Your task to perform on an android device: View the shopping cart on amazon. Search for "logitech g pro" on amazon, select the first entry, add it to the cart, then select checkout. Image 0: 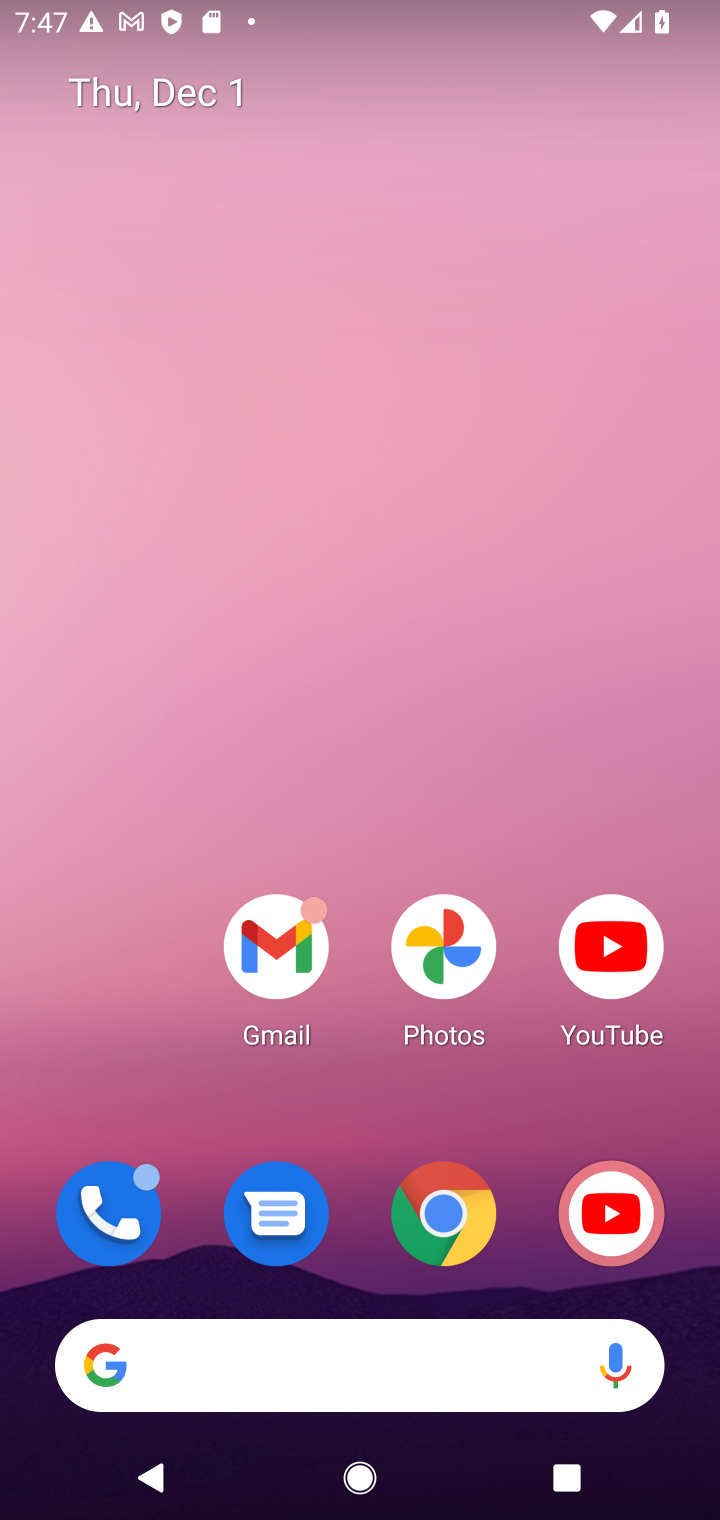
Step 0: click (444, 1212)
Your task to perform on an android device: View the shopping cart on amazon. Search for "logitech g pro" on amazon, select the first entry, add it to the cart, then select checkout. Image 1: 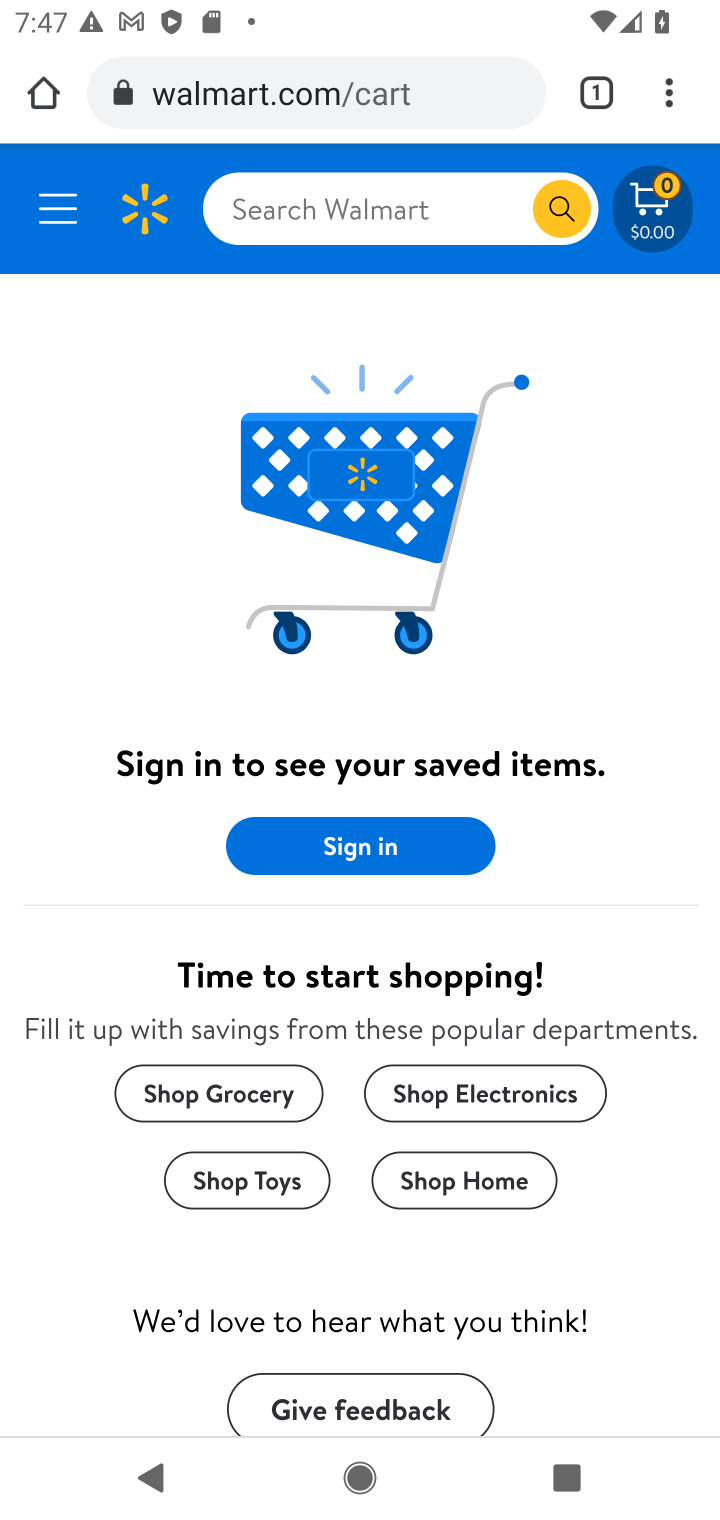
Step 1: click (397, 87)
Your task to perform on an android device: View the shopping cart on amazon. Search for "logitech g pro" on amazon, select the first entry, add it to the cart, then select checkout. Image 2: 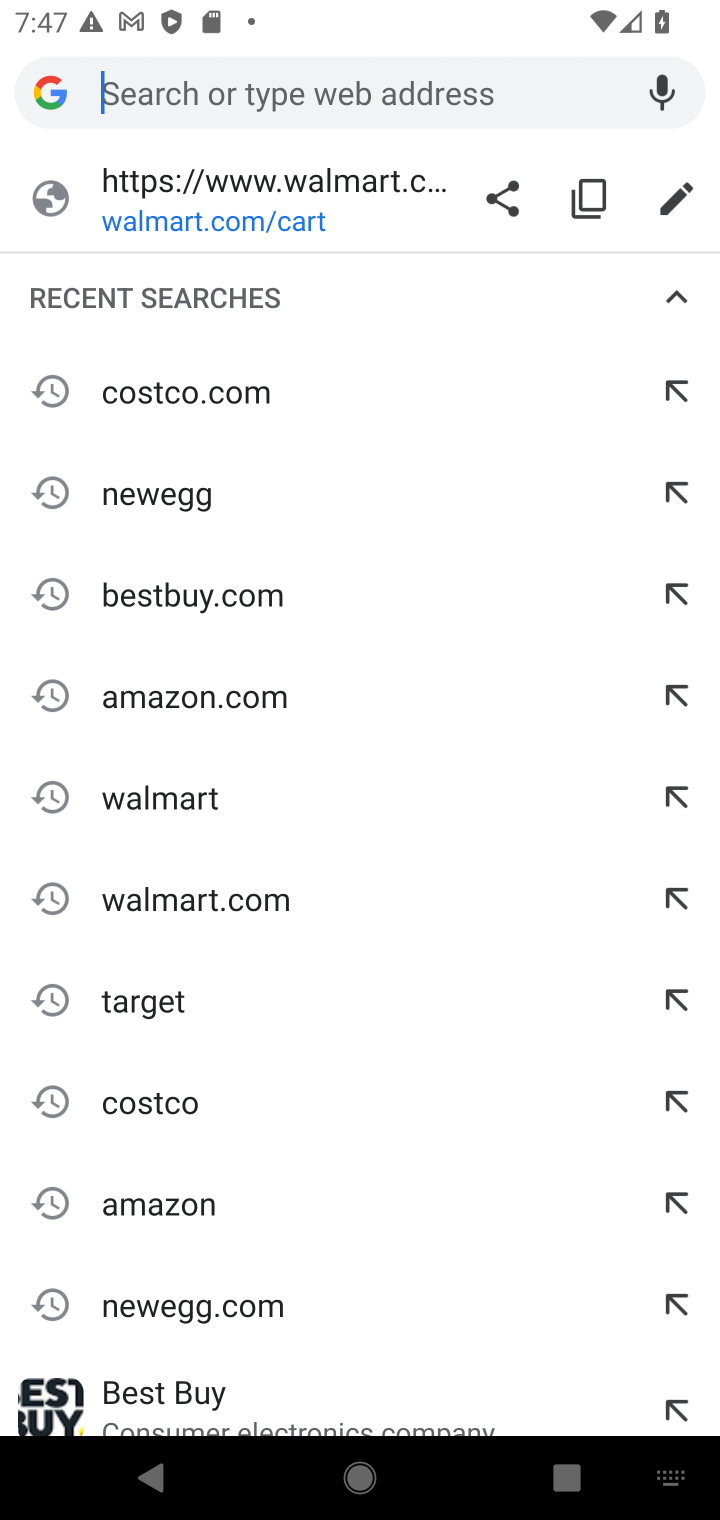
Step 2: click (255, 694)
Your task to perform on an android device: View the shopping cart on amazon. Search for "logitech g pro" on amazon, select the first entry, add it to the cart, then select checkout. Image 3: 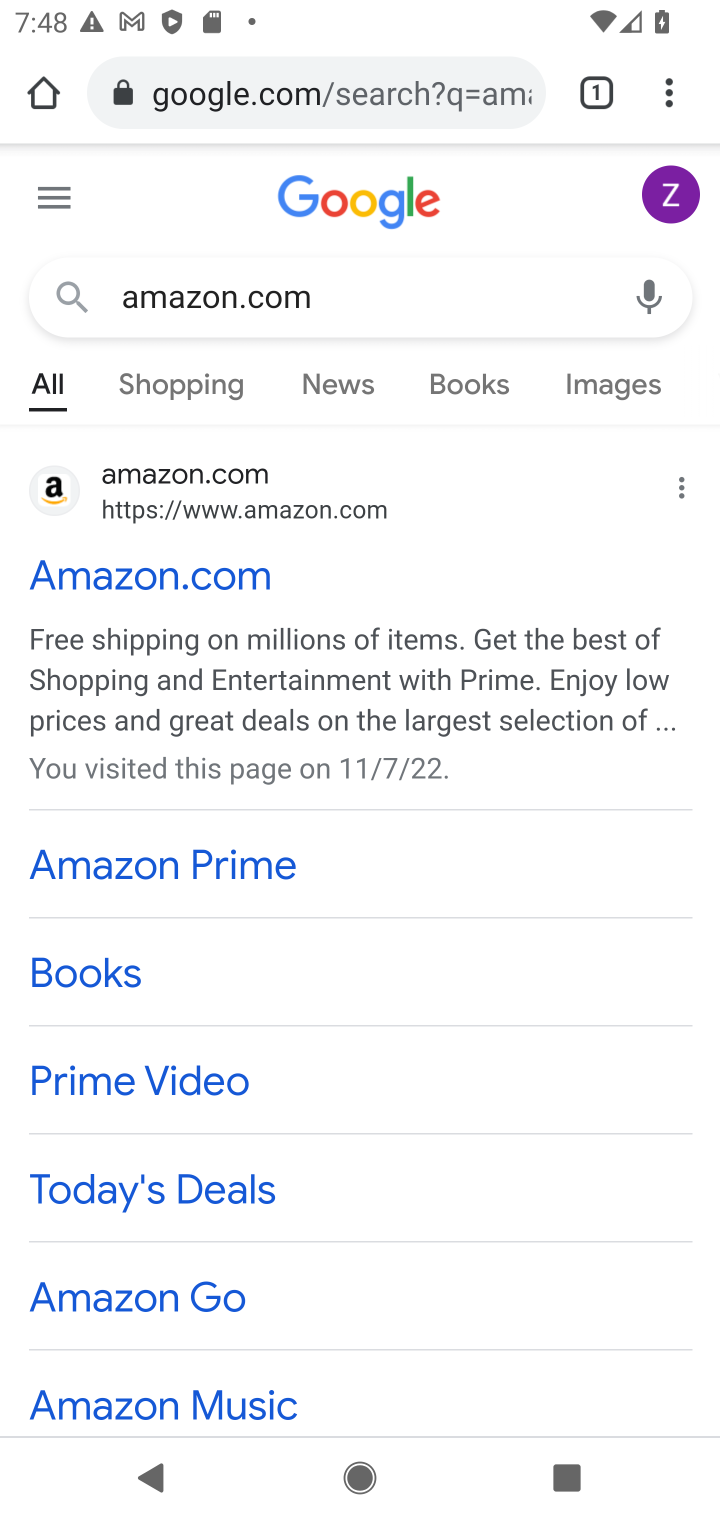
Step 3: click (160, 579)
Your task to perform on an android device: View the shopping cart on amazon. Search for "logitech g pro" on amazon, select the first entry, add it to the cart, then select checkout. Image 4: 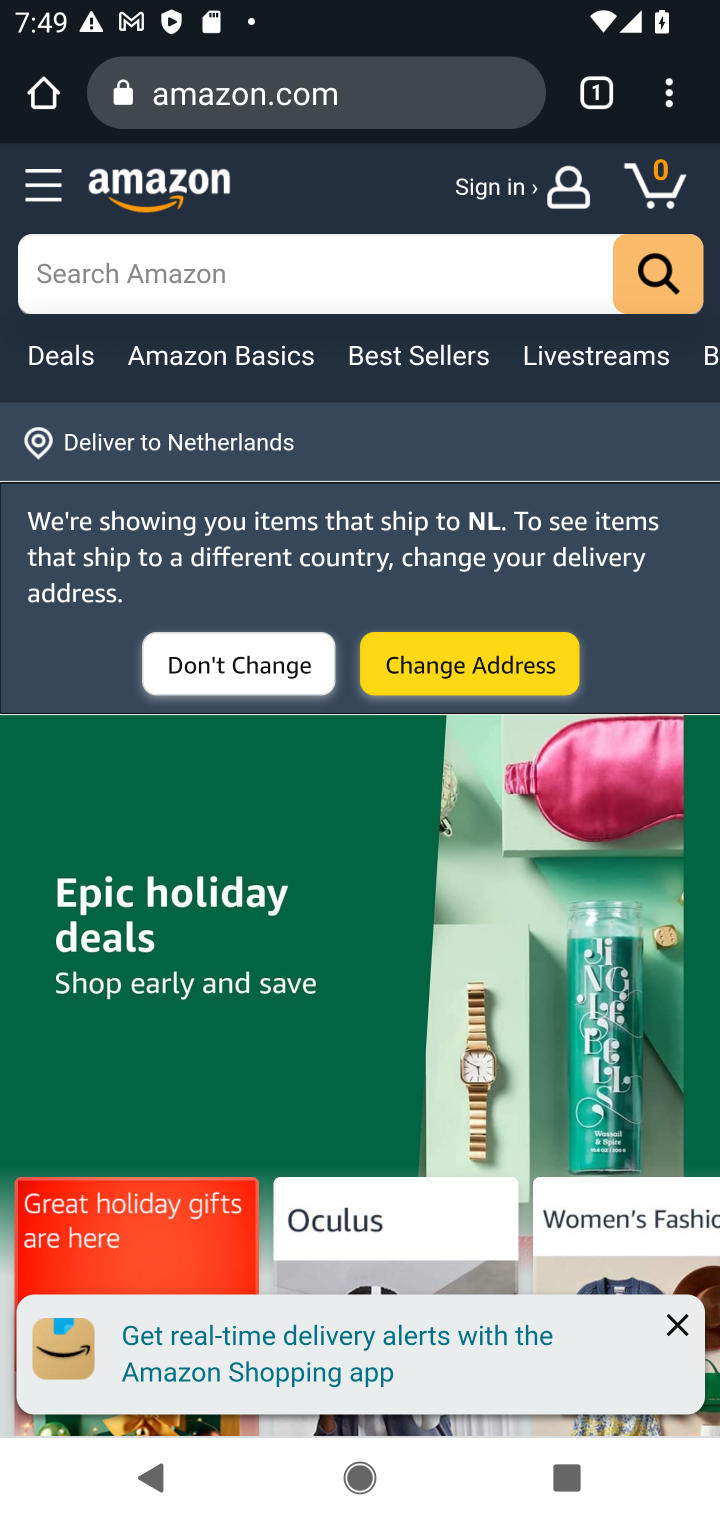
Step 4: click (433, 276)
Your task to perform on an android device: View the shopping cart on amazon. Search for "logitech g pro" on amazon, select the first entry, add it to the cart, then select checkout. Image 5: 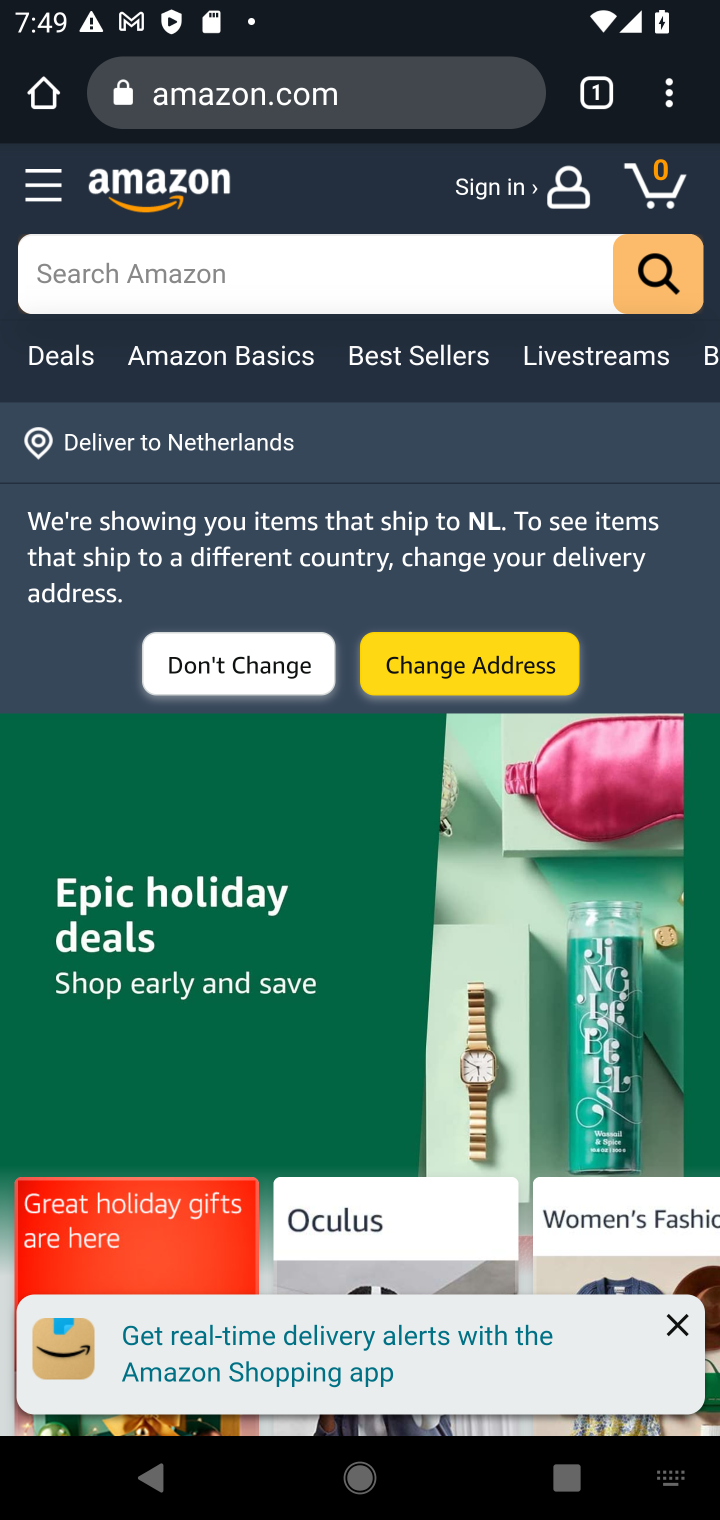
Step 5: type "logitech g pro"
Your task to perform on an android device: View the shopping cart on amazon. Search for "logitech g pro" on amazon, select the first entry, add it to the cart, then select checkout. Image 6: 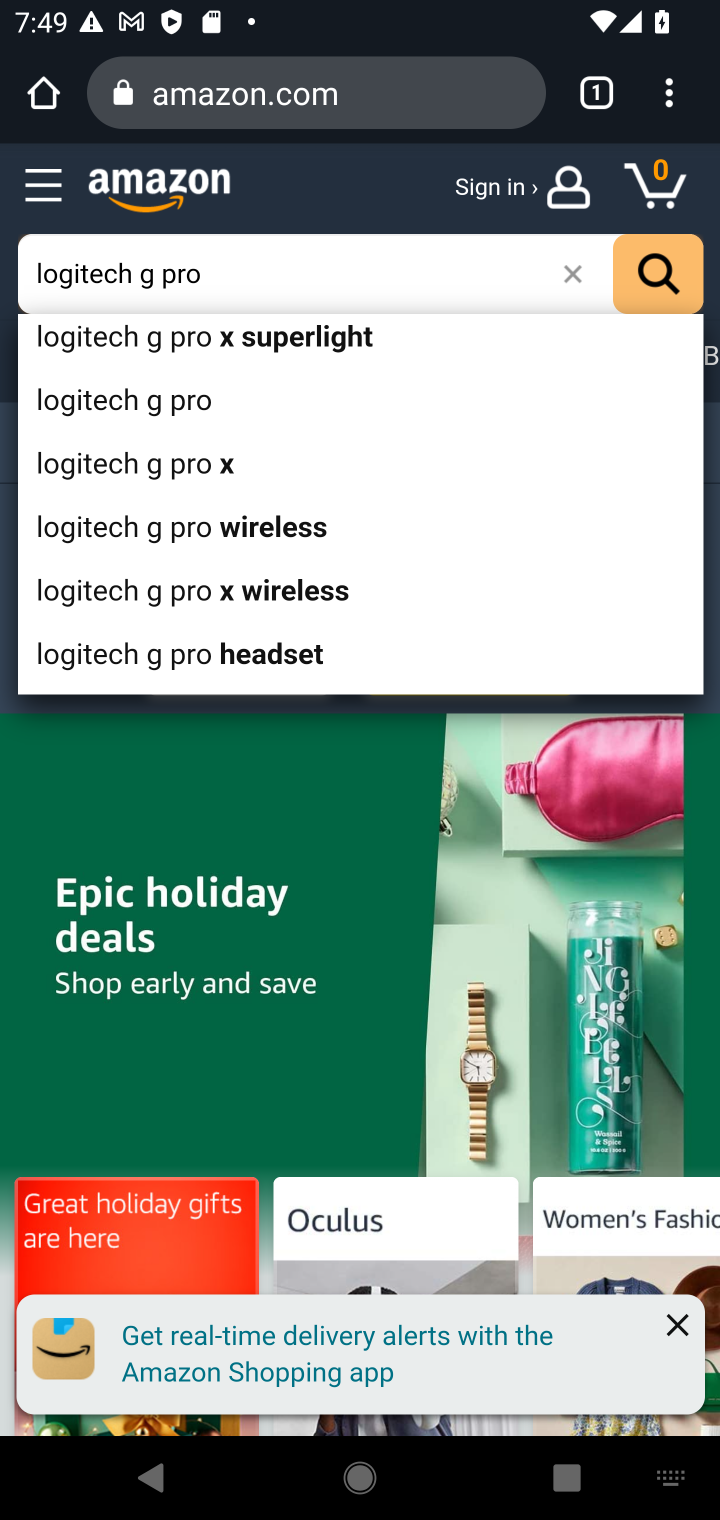
Step 6: click (193, 341)
Your task to perform on an android device: View the shopping cart on amazon. Search for "logitech g pro" on amazon, select the first entry, add it to the cart, then select checkout. Image 7: 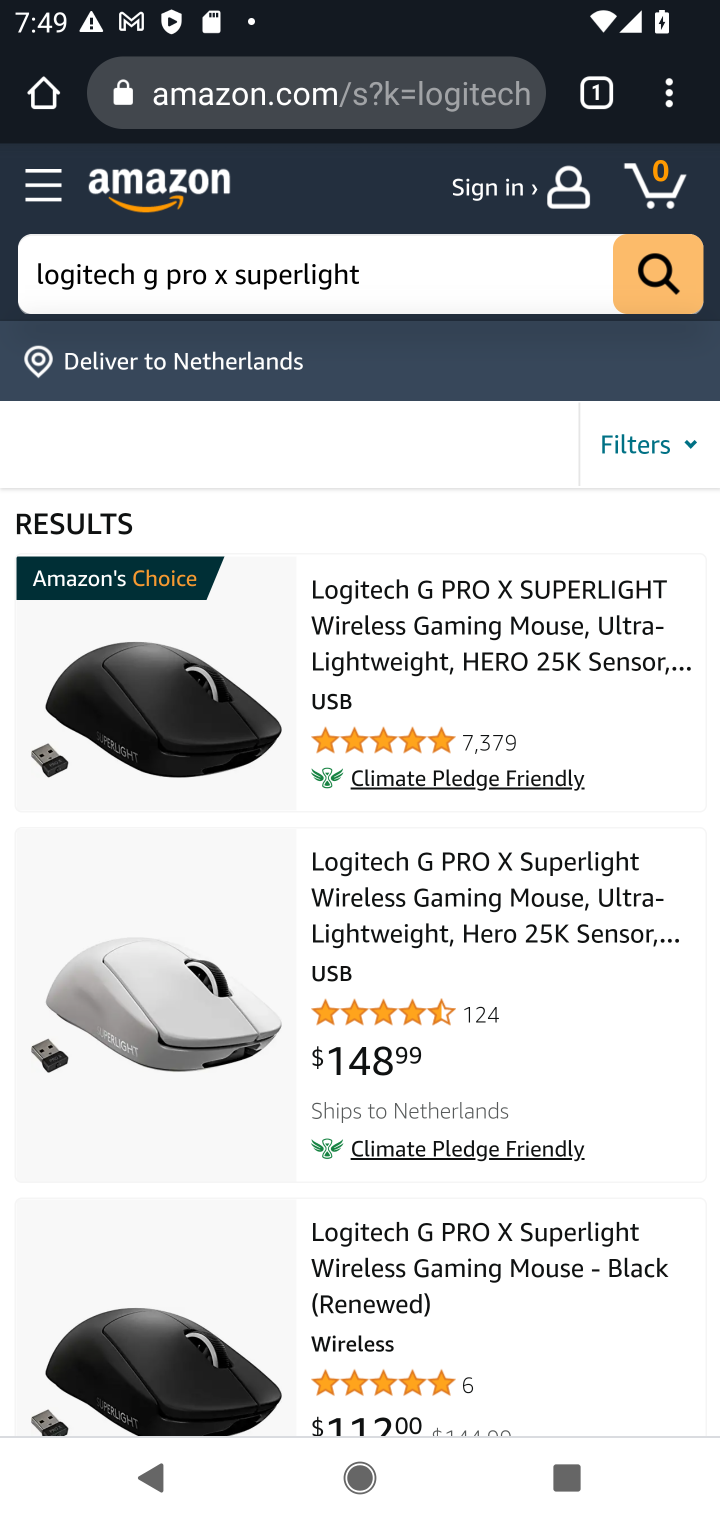
Step 7: click (184, 694)
Your task to perform on an android device: View the shopping cart on amazon. Search for "logitech g pro" on amazon, select the first entry, add it to the cart, then select checkout. Image 8: 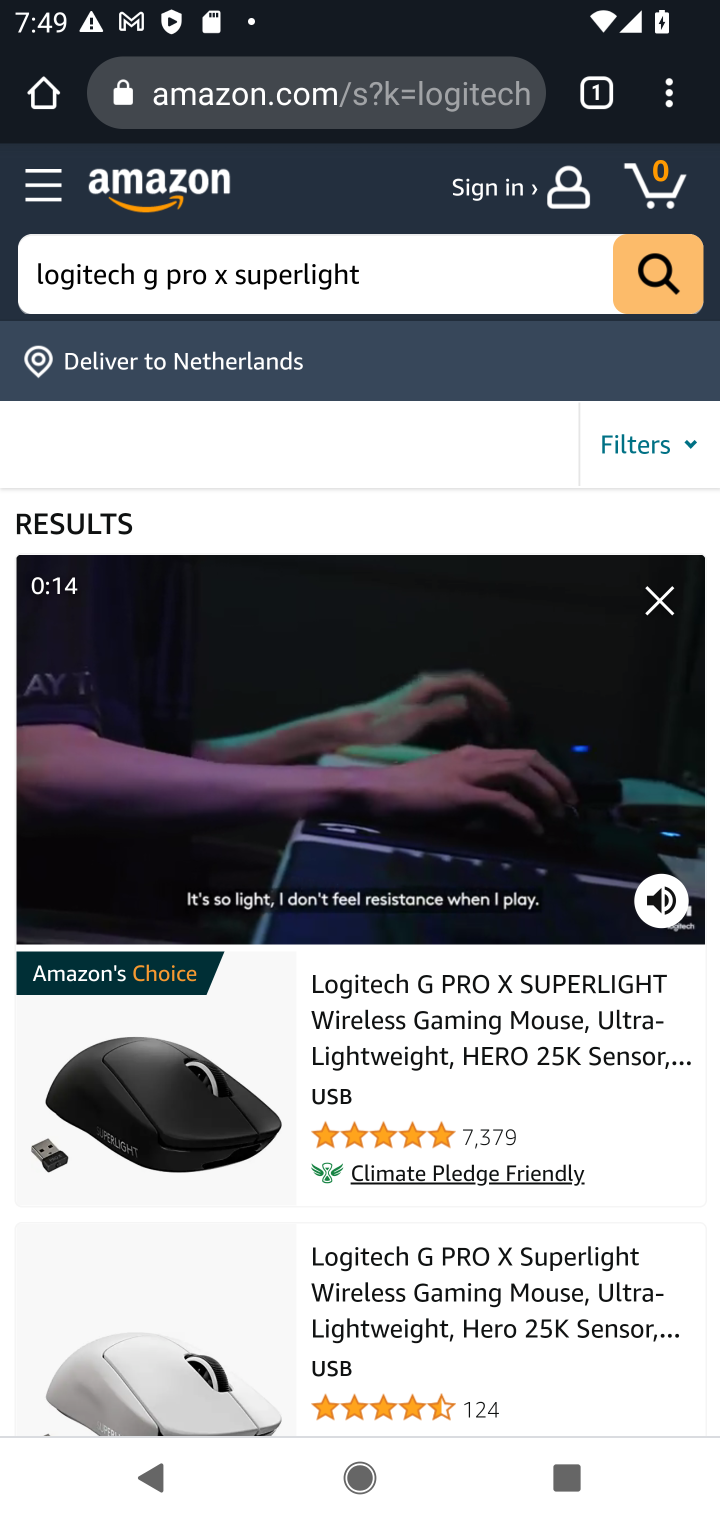
Step 8: click (664, 603)
Your task to perform on an android device: View the shopping cart on amazon. Search for "logitech g pro" on amazon, select the first entry, add it to the cart, then select checkout. Image 9: 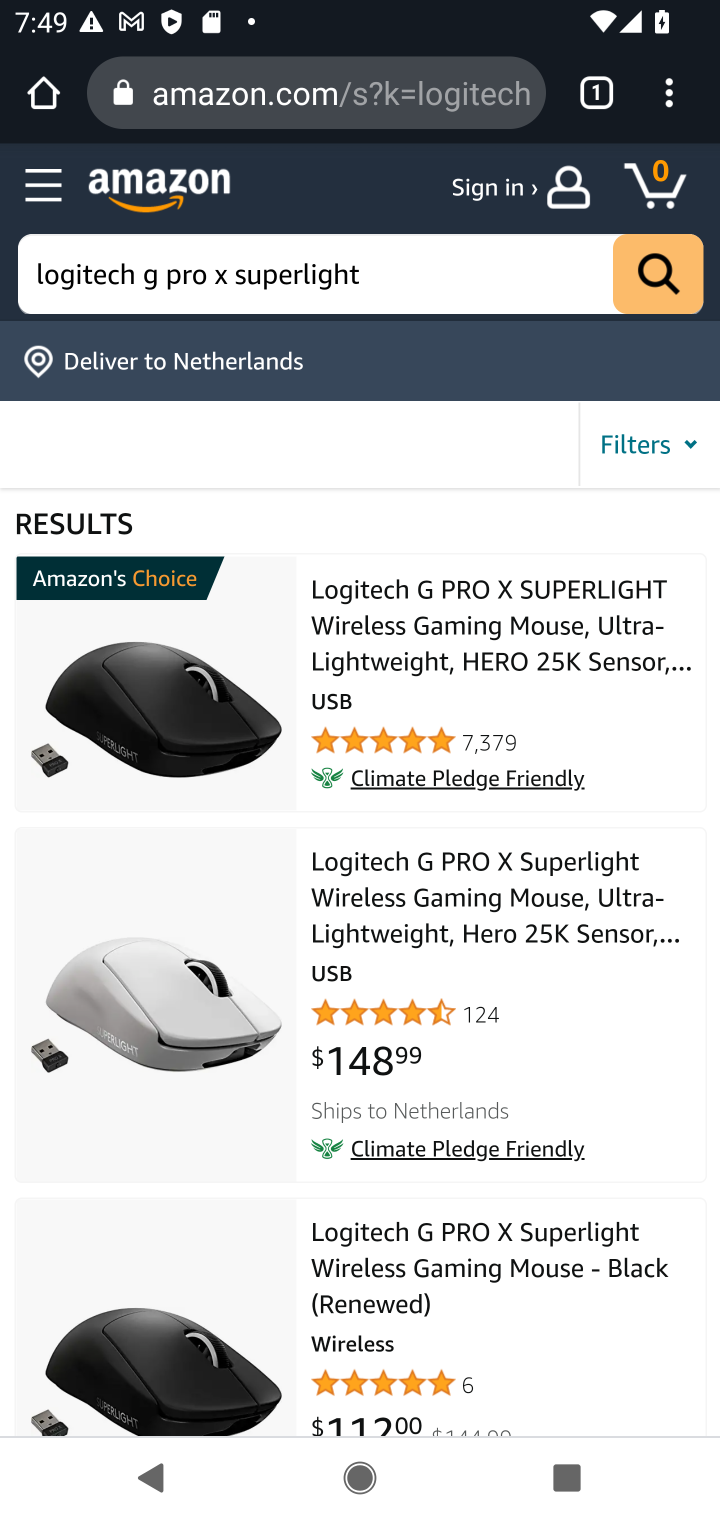
Step 9: click (128, 752)
Your task to perform on an android device: View the shopping cart on amazon. Search for "logitech g pro" on amazon, select the first entry, add it to the cart, then select checkout. Image 10: 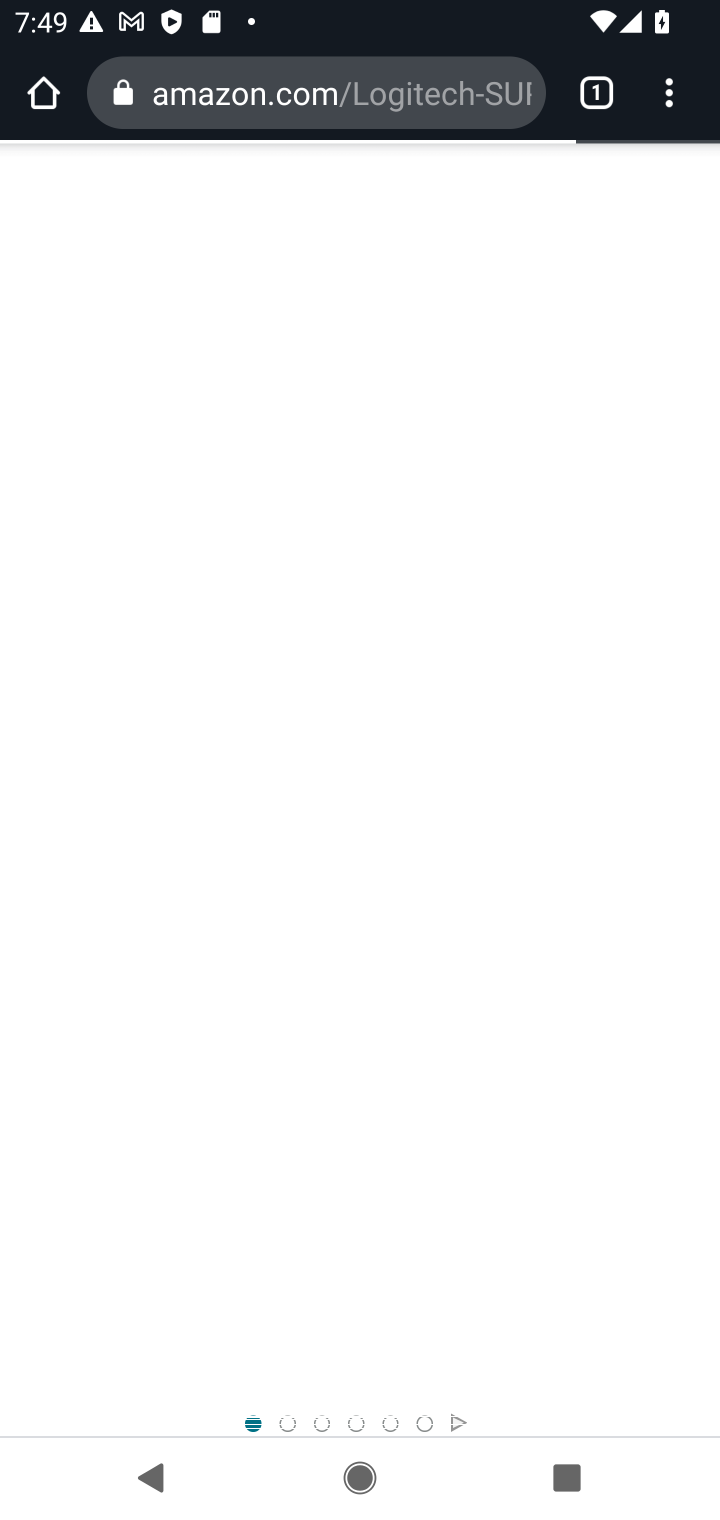
Step 10: drag from (356, 1206) to (336, 585)
Your task to perform on an android device: View the shopping cart on amazon. Search for "logitech g pro" on amazon, select the first entry, add it to the cart, then select checkout. Image 11: 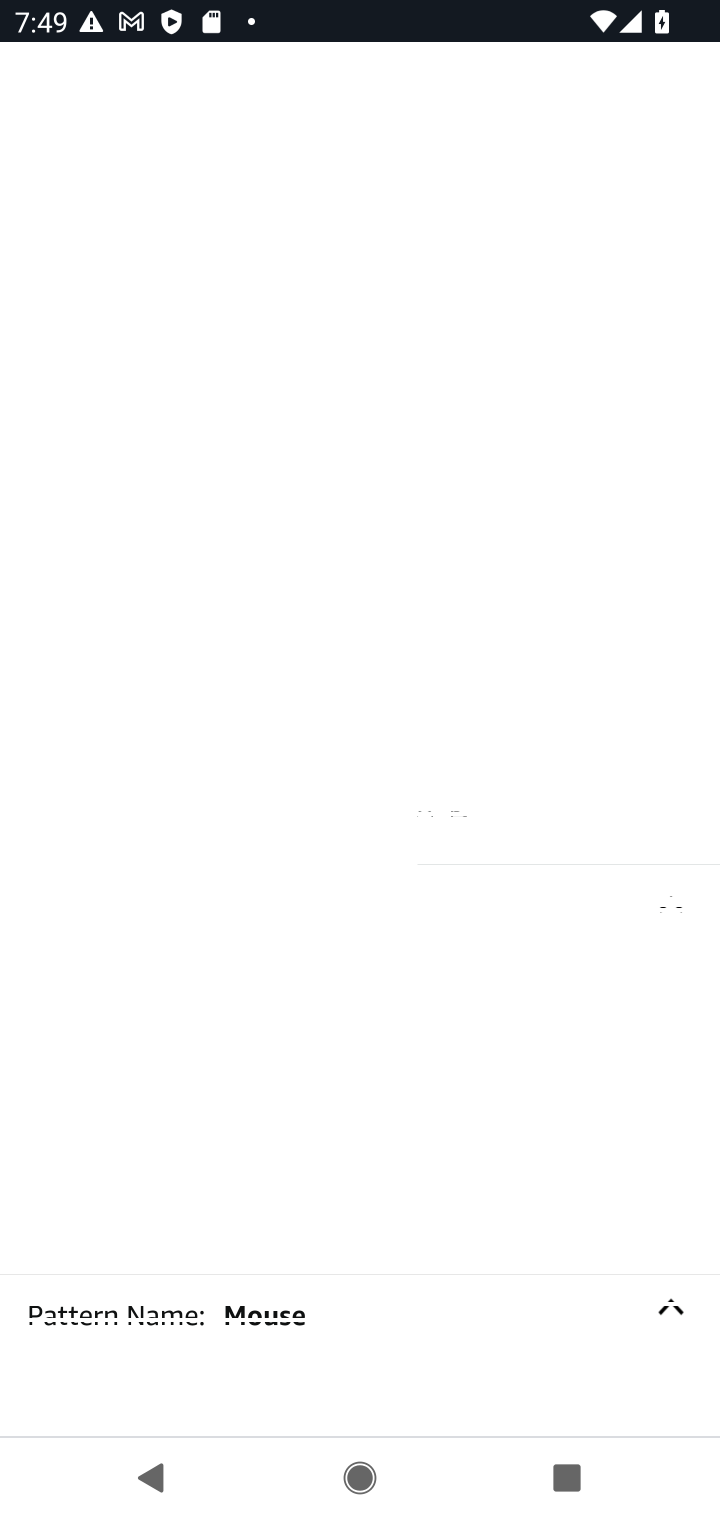
Step 11: drag from (323, 1310) to (321, 753)
Your task to perform on an android device: View the shopping cart on amazon. Search for "logitech g pro" on amazon, select the first entry, add it to the cart, then select checkout. Image 12: 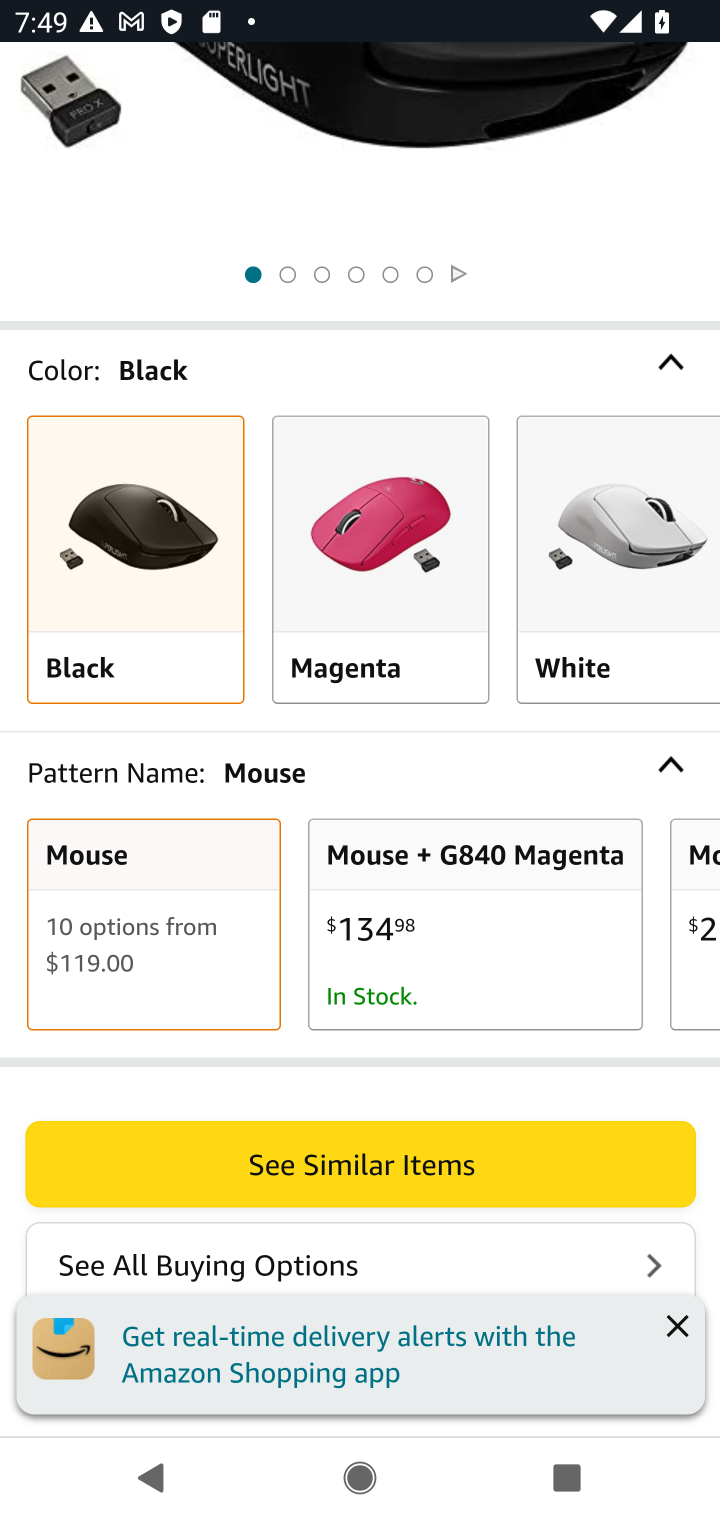
Step 12: drag from (413, 1270) to (394, 637)
Your task to perform on an android device: View the shopping cart on amazon. Search for "logitech g pro" on amazon, select the first entry, add it to the cart, then select checkout. Image 13: 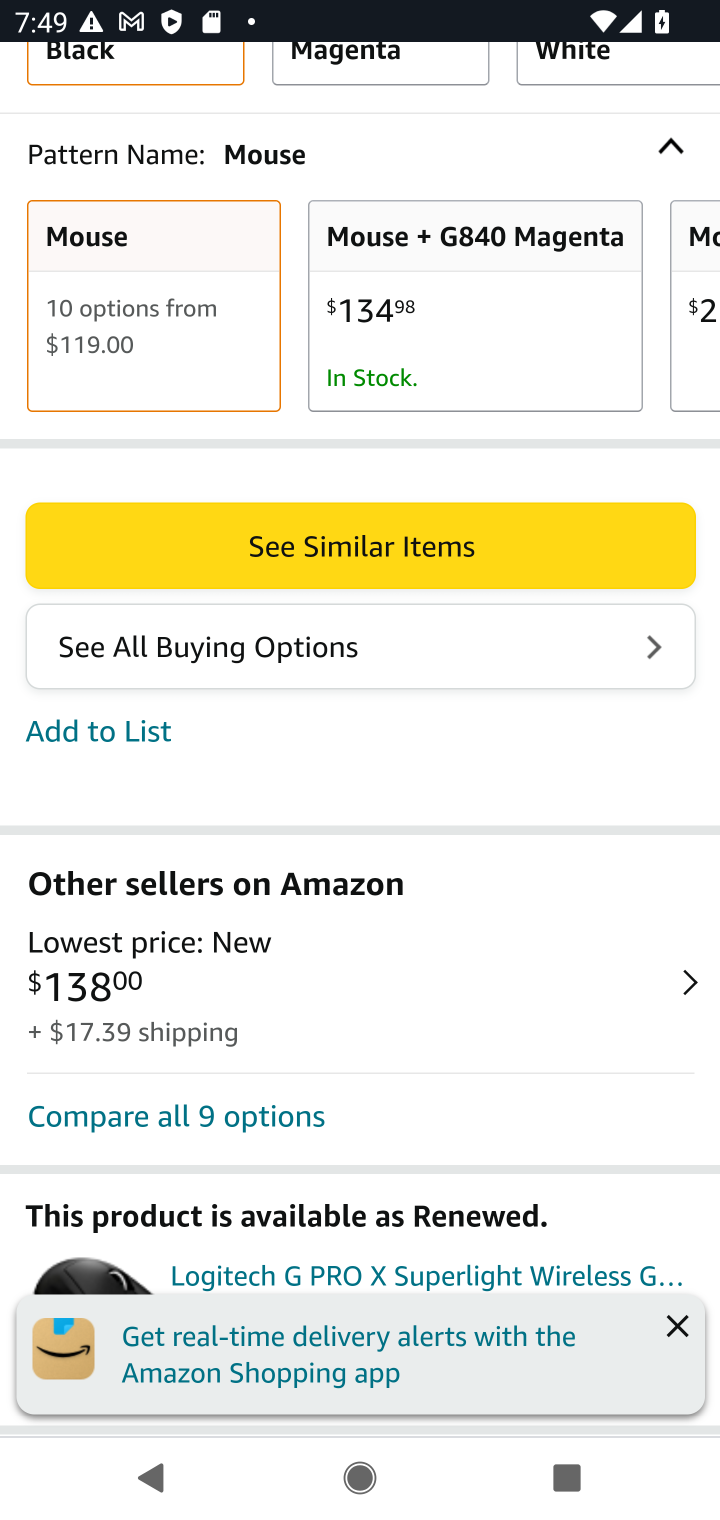
Step 13: drag from (374, 1181) to (406, 1306)
Your task to perform on an android device: View the shopping cart on amazon. Search for "logitech g pro" on amazon, select the first entry, add it to the cart, then select checkout. Image 14: 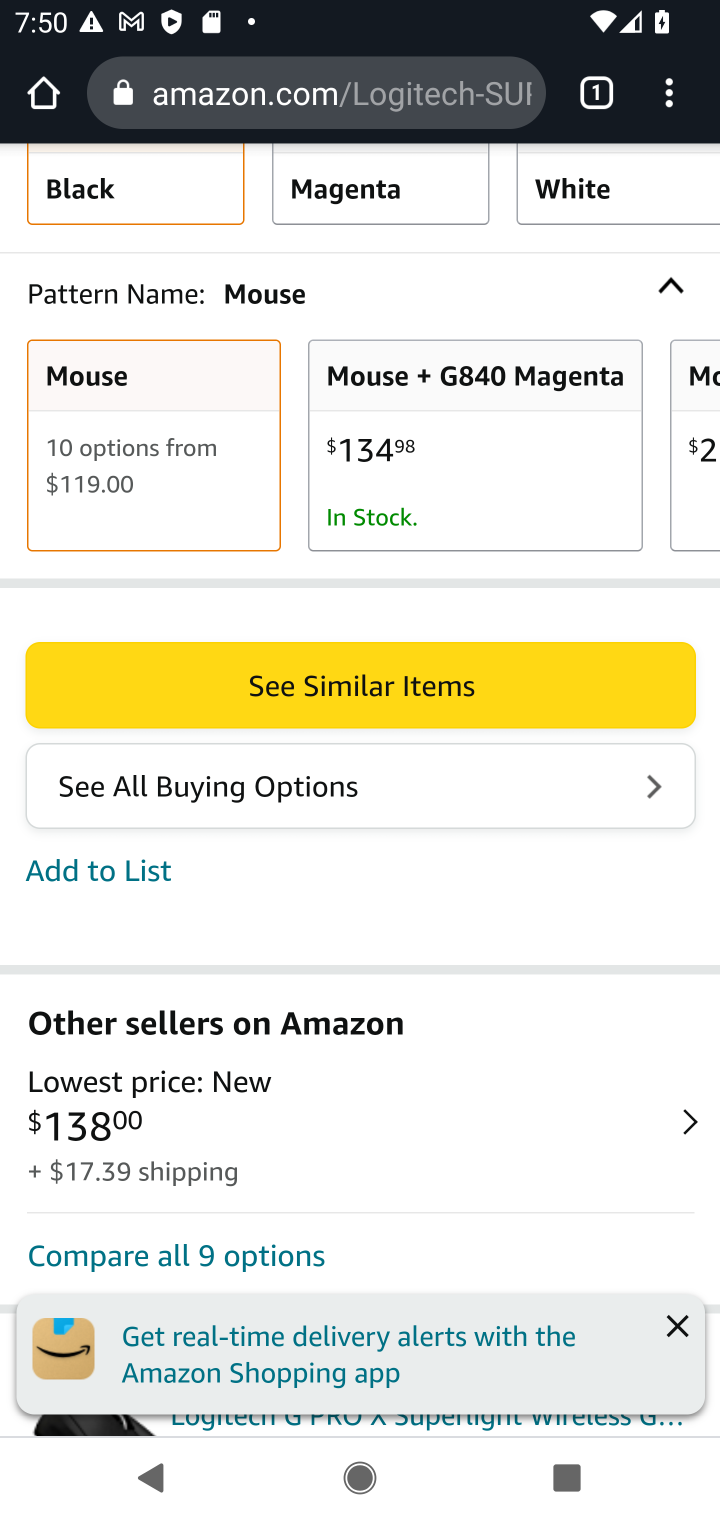
Step 14: click (426, 418)
Your task to perform on an android device: View the shopping cart on amazon. Search for "logitech g pro" on amazon, select the first entry, add it to the cart, then select checkout. Image 15: 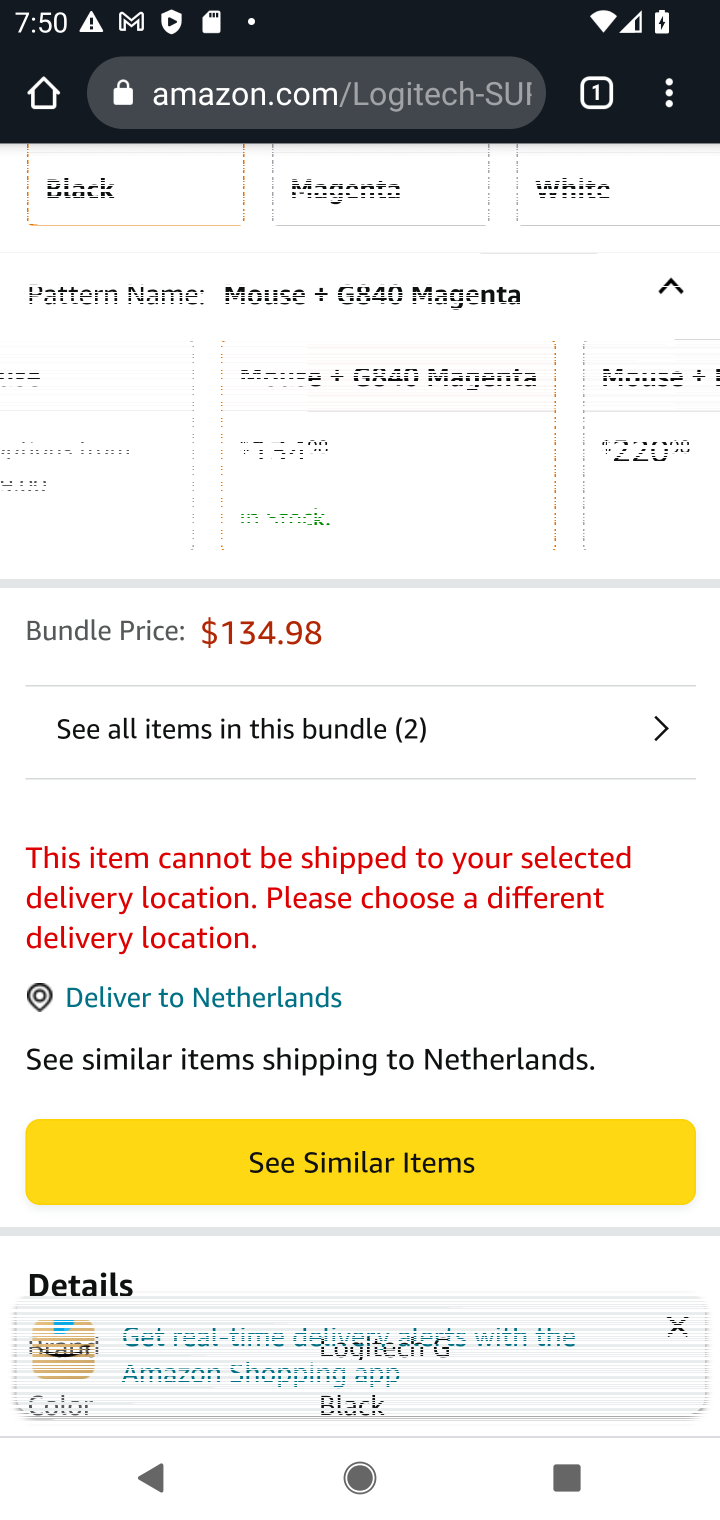
Step 15: task complete